Your task to perform on an android device: Add usb-a to the cart on bestbuy.com, then select checkout. Image 0: 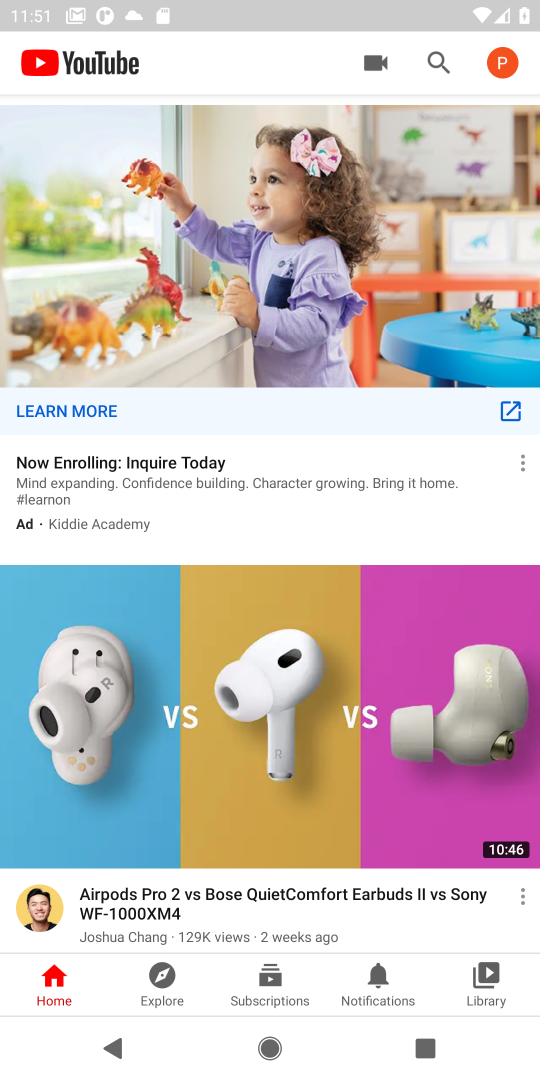
Step 0: press home button
Your task to perform on an android device: Add usb-a to the cart on bestbuy.com, then select checkout. Image 1: 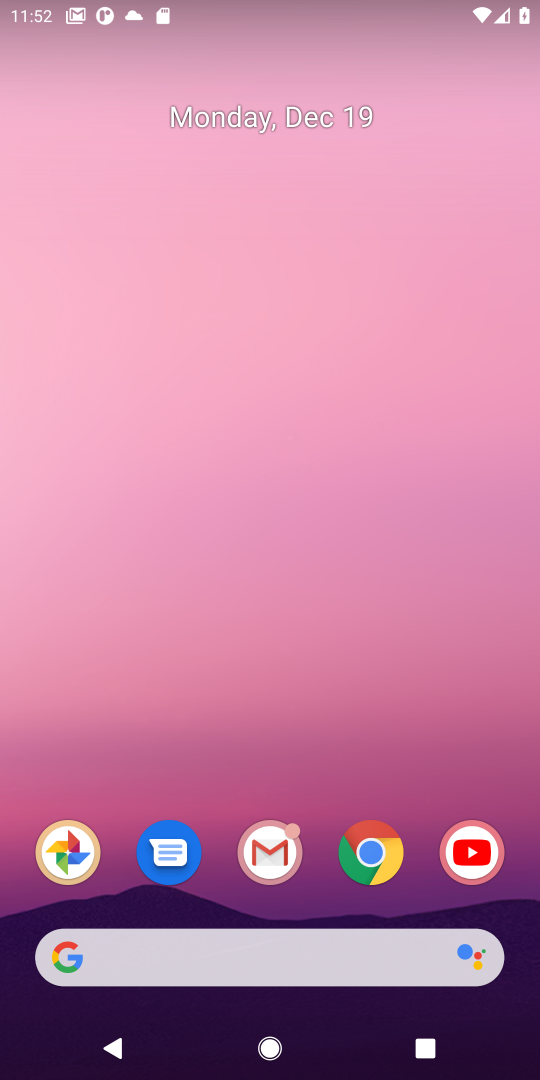
Step 1: click (372, 856)
Your task to perform on an android device: Add usb-a to the cart on bestbuy.com, then select checkout. Image 2: 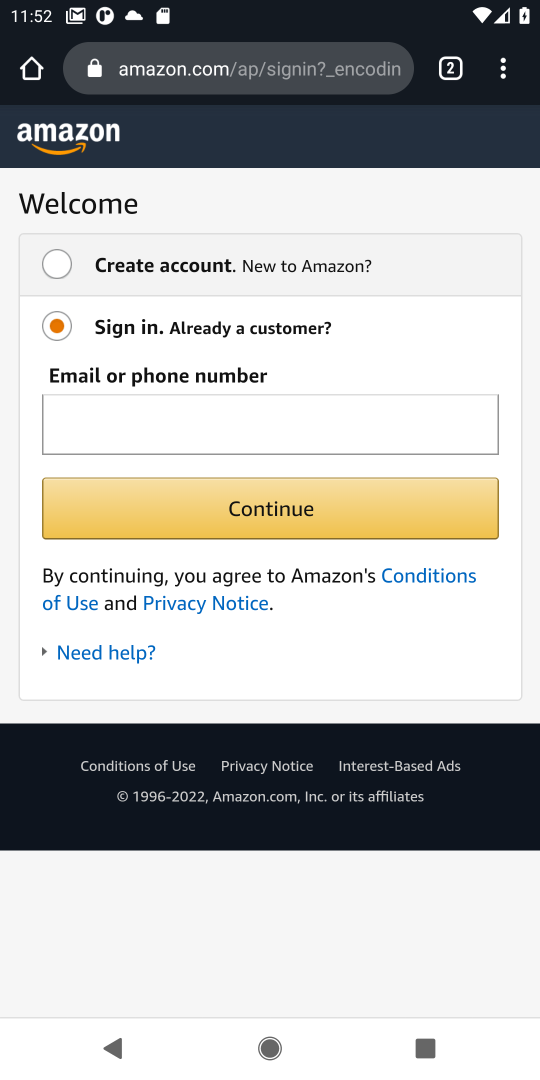
Step 2: click (183, 67)
Your task to perform on an android device: Add usb-a to the cart on bestbuy.com, then select checkout. Image 3: 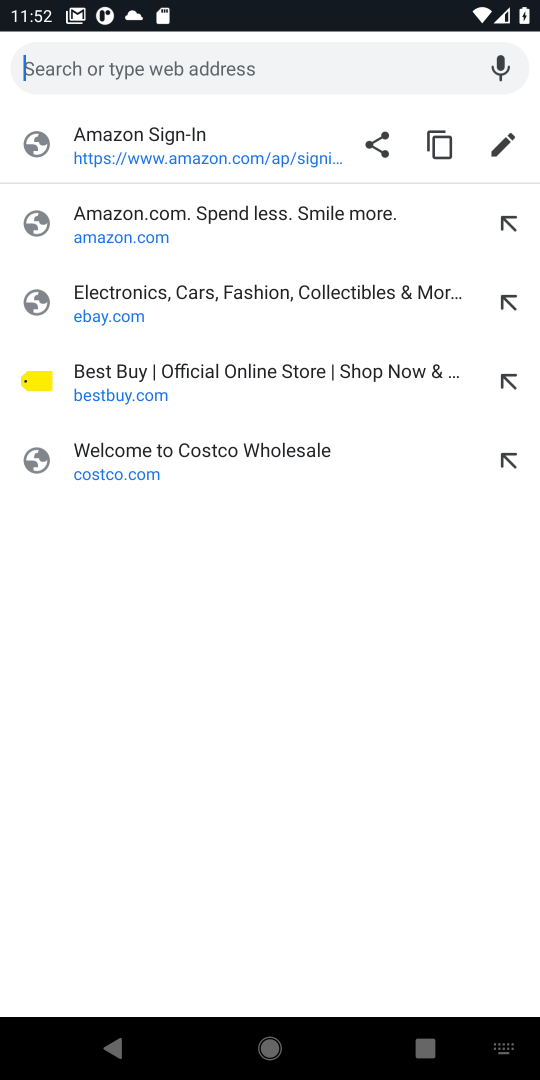
Step 3: click (83, 377)
Your task to perform on an android device: Add usb-a to the cart on bestbuy.com, then select checkout. Image 4: 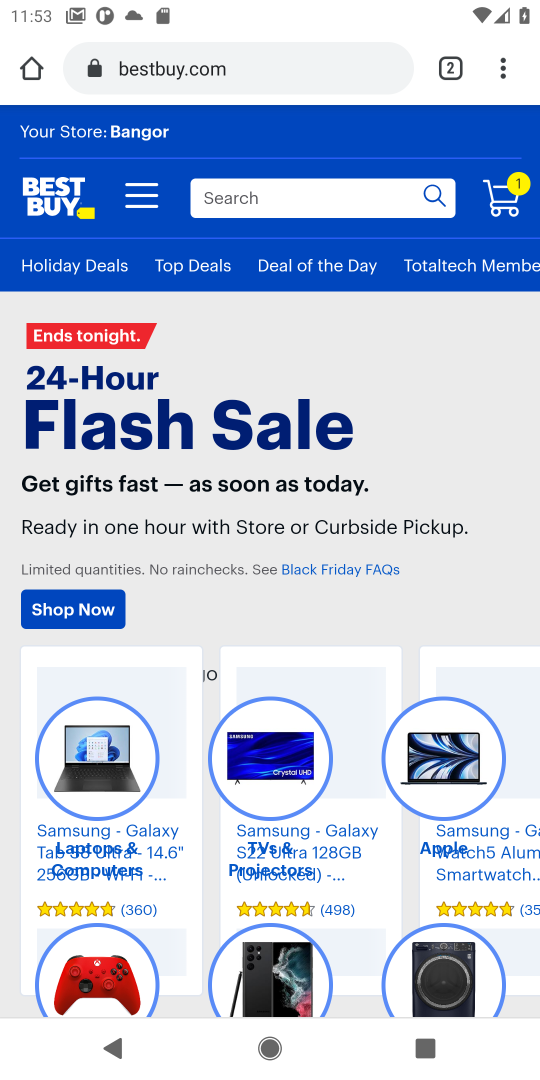
Step 4: click (235, 207)
Your task to perform on an android device: Add usb-a to the cart on bestbuy.com, then select checkout. Image 5: 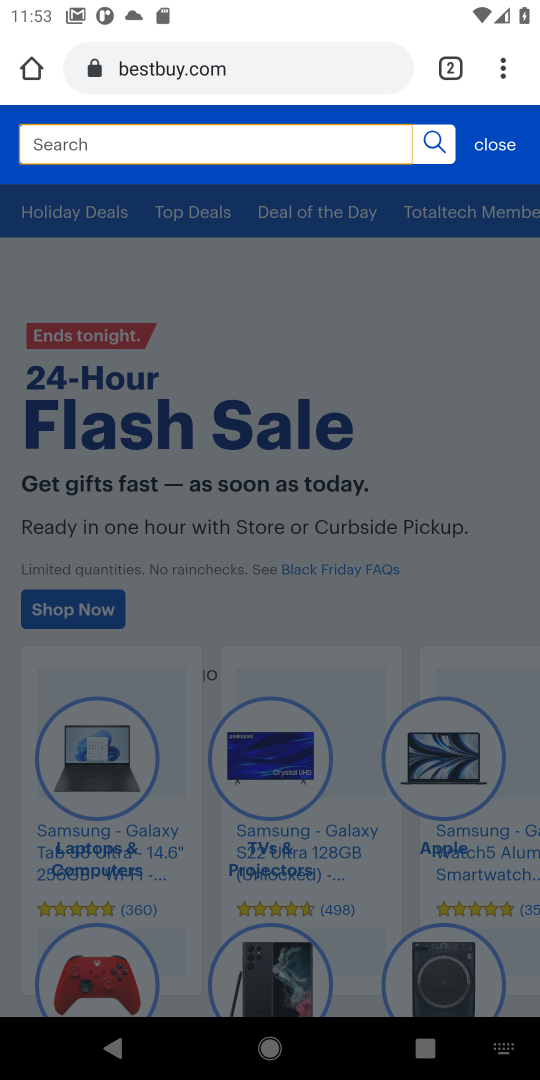
Step 5: type "usb-a"
Your task to perform on an android device: Add usb-a to the cart on bestbuy.com, then select checkout. Image 6: 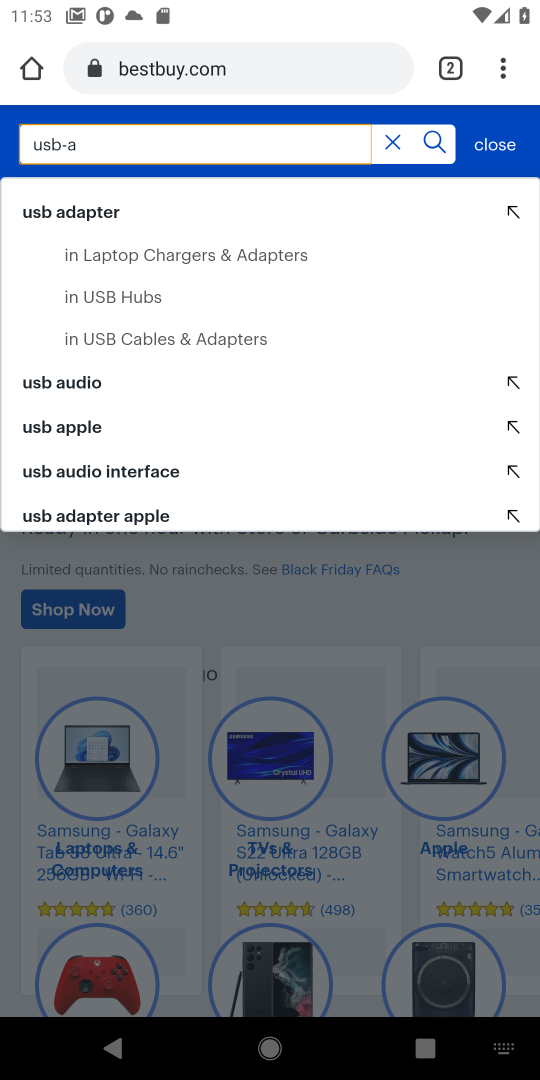
Step 6: click (428, 145)
Your task to perform on an android device: Add usb-a to the cart on bestbuy.com, then select checkout. Image 7: 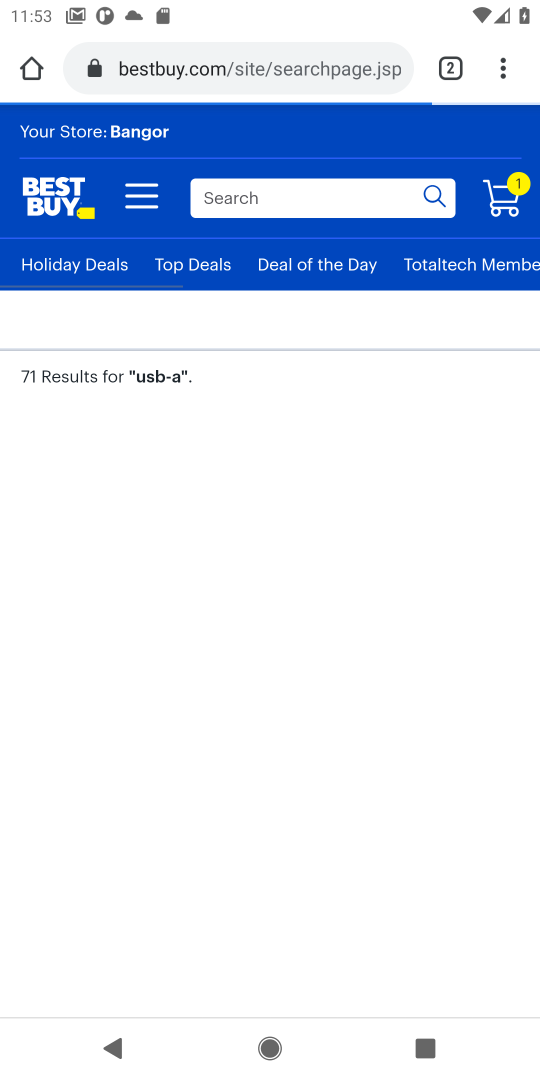
Step 7: click (431, 142)
Your task to perform on an android device: Add usb-a to the cart on bestbuy.com, then select checkout. Image 8: 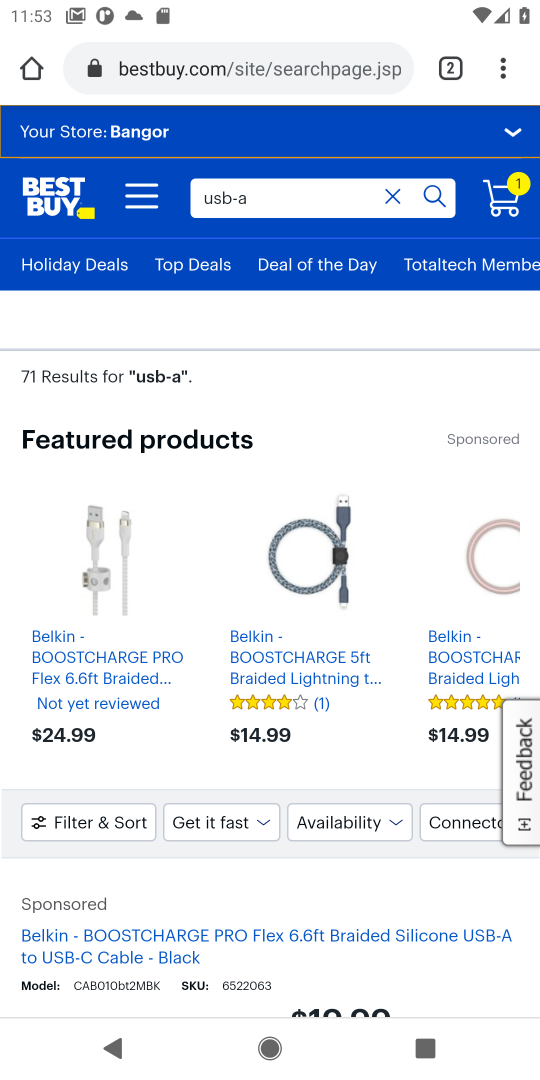
Step 8: drag from (197, 740) to (201, 379)
Your task to perform on an android device: Add usb-a to the cart on bestbuy.com, then select checkout. Image 9: 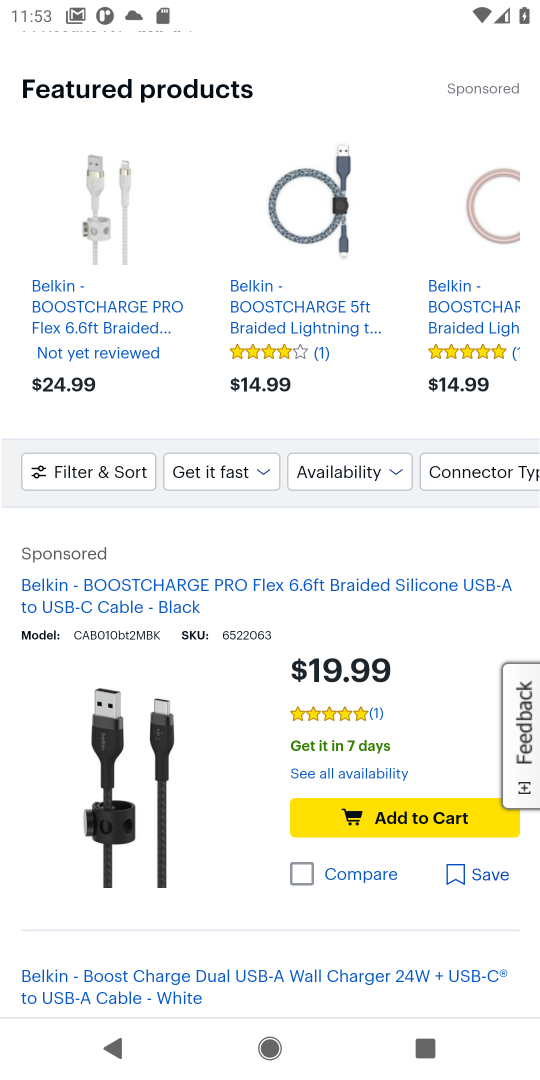
Step 9: click (378, 820)
Your task to perform on an android device: Add usb-a to the cart on bestbuy.com, then select checkout. Image 10: 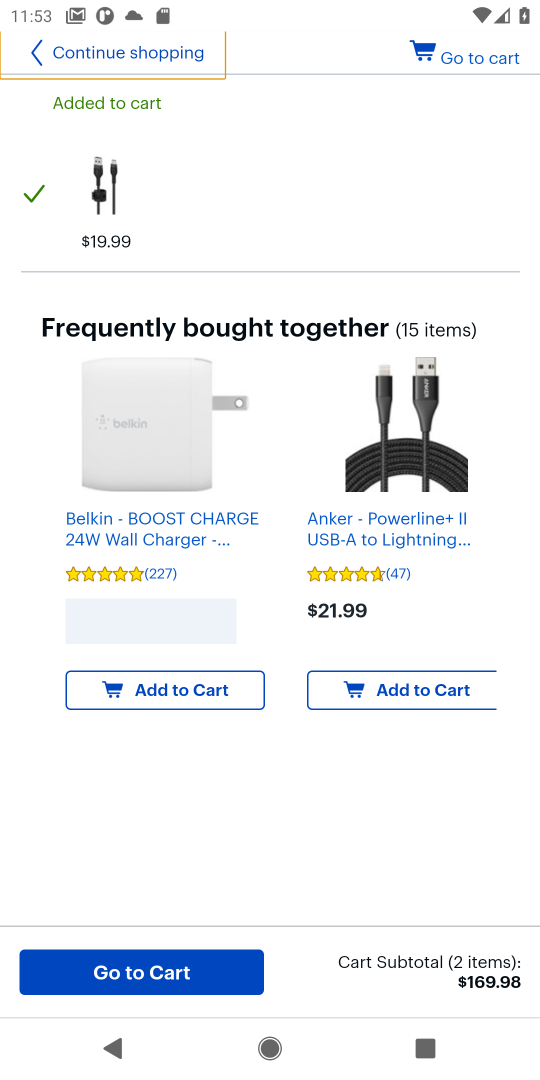
Step 10: click (487, 62)
Your task to perform on an android device: Add usb-a to the cart on bestbuy.com, then select checkout. Image 11: 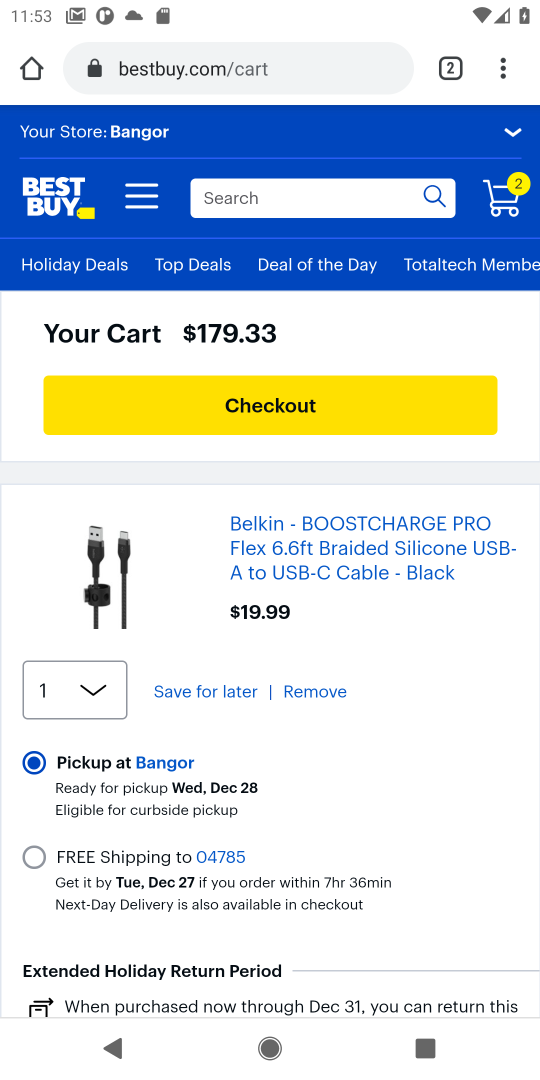
Step 11: click (258, 412)
Your task to perform on an android device: Add usb-a to the cart on bestbuy.com, then select checkout. Image 12: 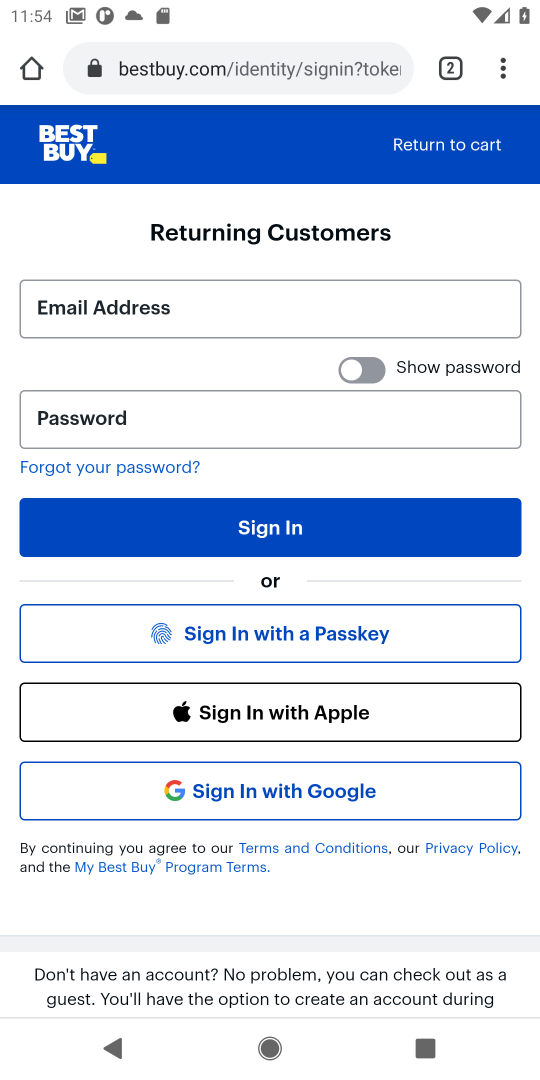
Step 12: task complete